Your task to perform on an android device: open app "Fetch Rewards" (install if not already installed) Image 0: 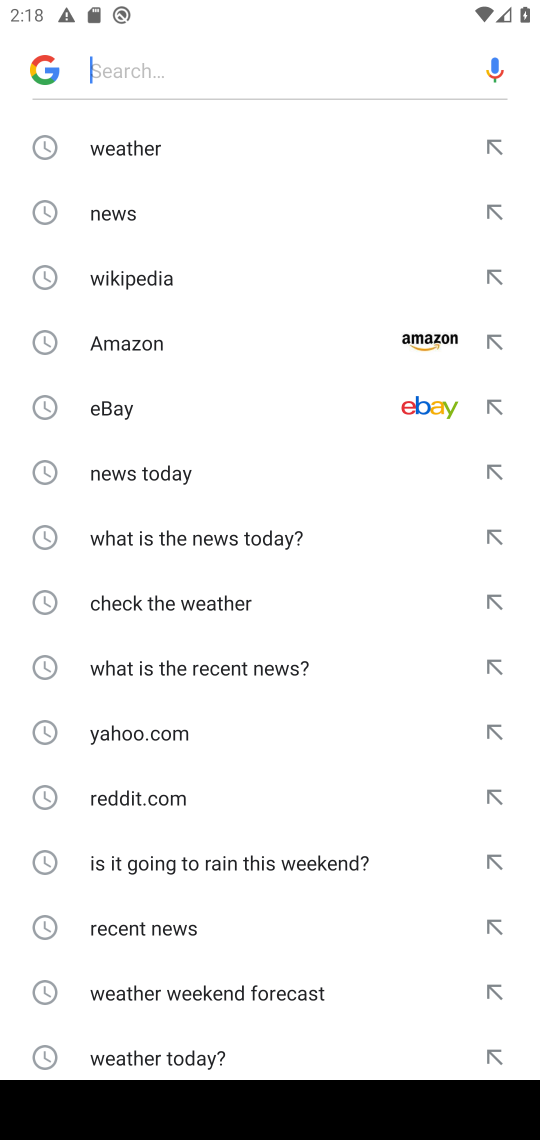
Step 0: press home button
Your task to perform on an android device: open app "Fetch Rewards" (install if not already installed) Image 1: 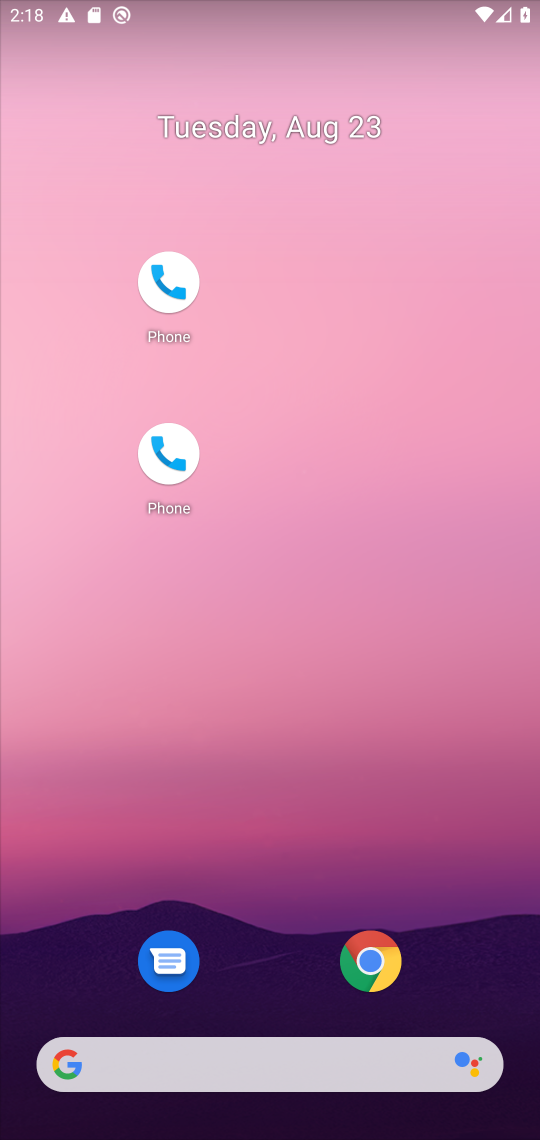
Step 1: drag from (242, 1018) to (226, 29)
Your task to perform on an android device: open app "Fetch Rewards" (install if not already installed) Image 2: 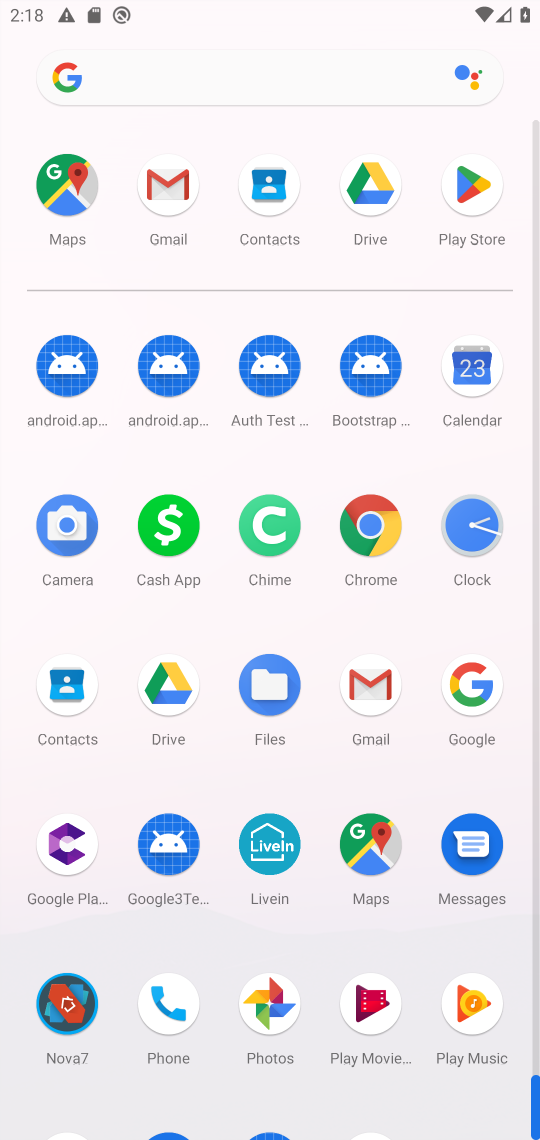
Step 2: click (491, 223)
Your task to perform on an android device: open app "Fetch Rewards" (install if not already installed) Image 3: 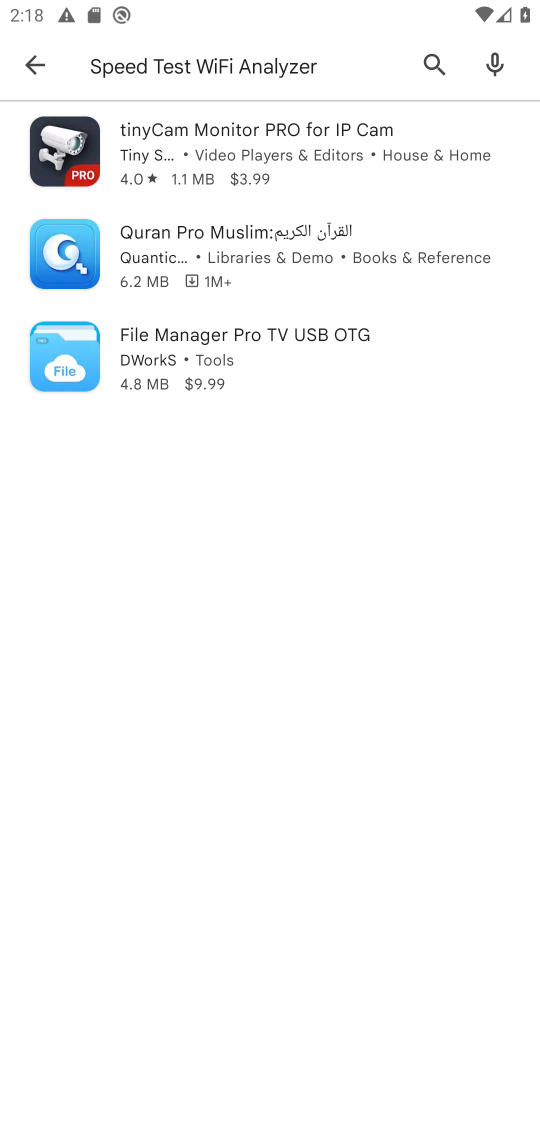
Step 3: click (428, 78)
Your task to perform on an android device: open app "Fetch Rewards" (install if not already installed) Image 4: 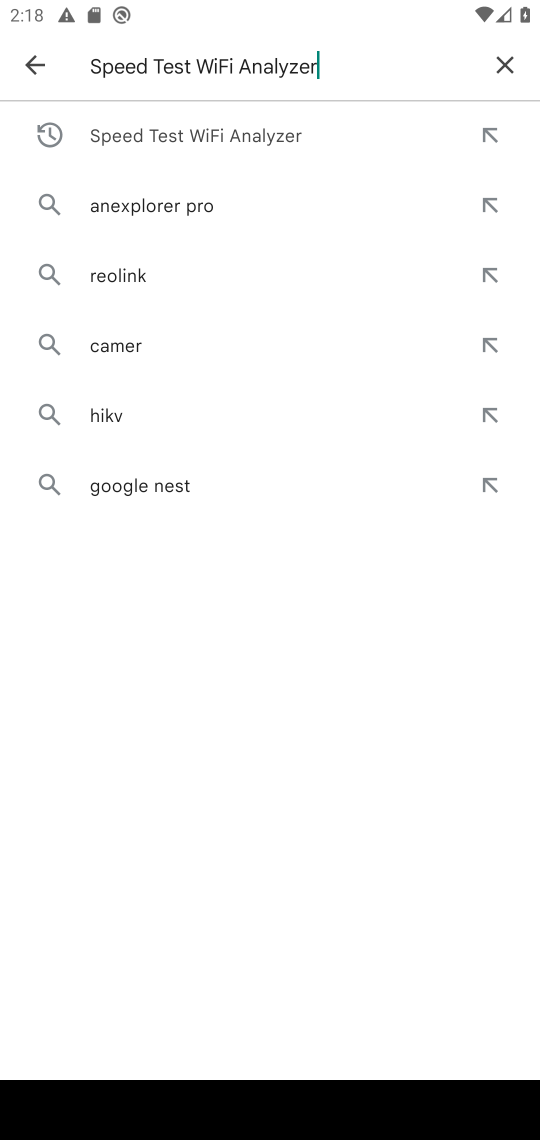
Step 4: click (420, 70)
Your task to perform on an android device: open app "Fetch Rewards" (install if not already installed) Image 5: 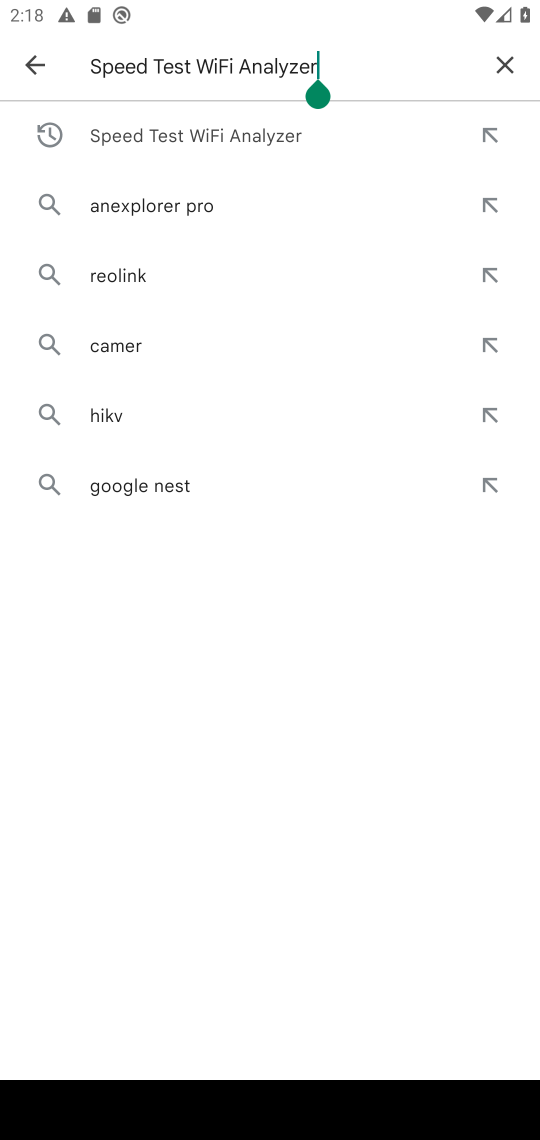
Step 5: click (502, 67)
Your task to perform on an android device: open app "Fetch Rewards" (install if not already installed) Image 6: 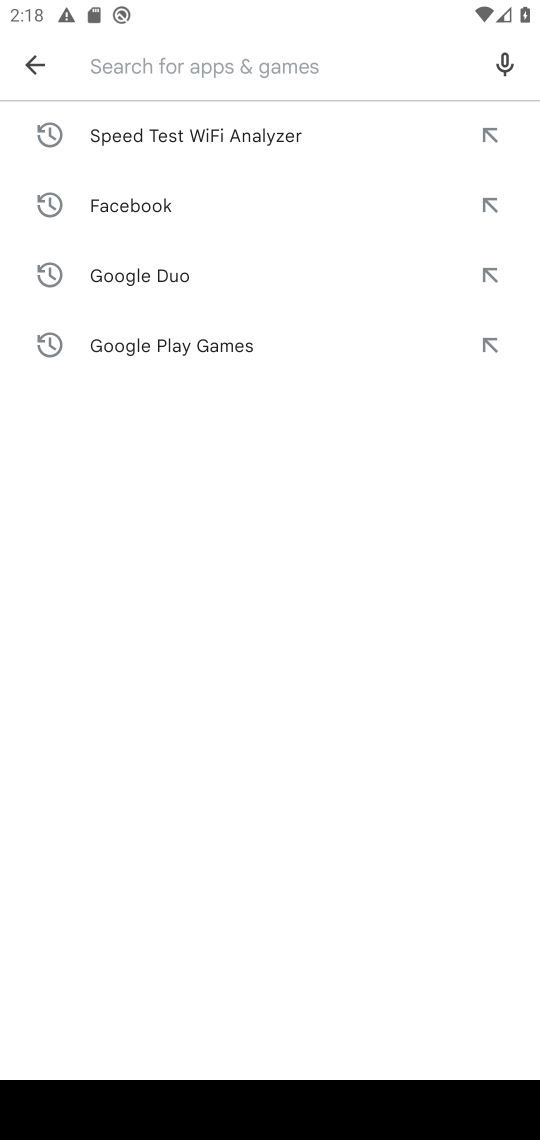
Step 6: type "fetch"
Your task to perform on an android device: open app "Fetch Rewards" (install if not already installed) Image 7: 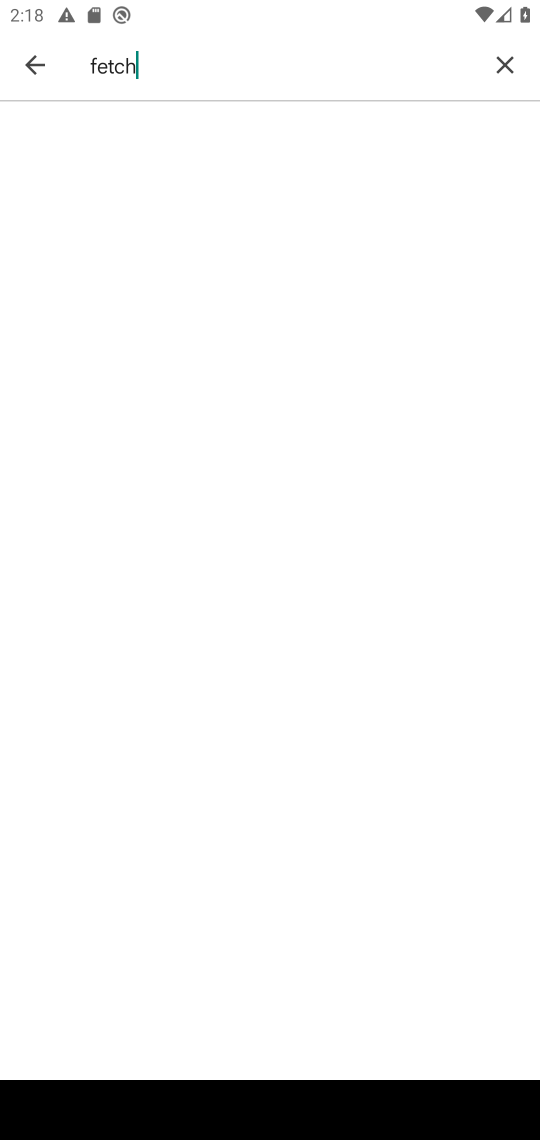
Step 7: task complete